Your task to perform on an android device: Go to Wikipedia Image 0: 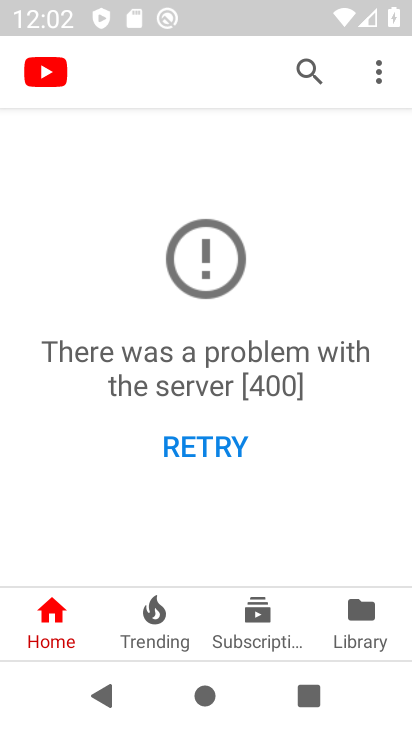
Step 0: press home button
Your task to perform on an android device: Go to Wikipedia Image 1: 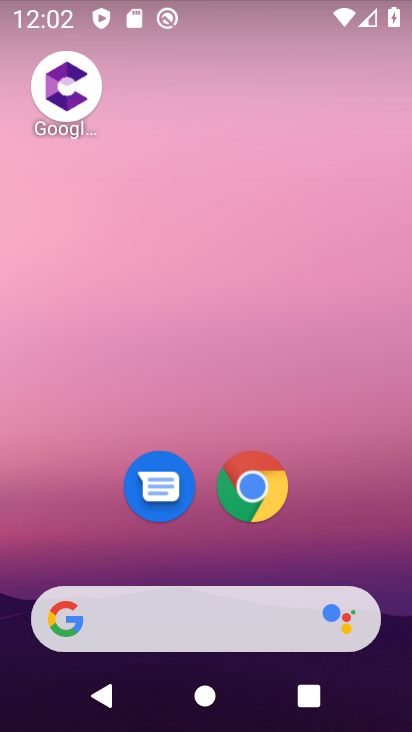
Step 1: click (257, 464)
Your task to perform on an android device: Go to Wikipedia Image 2: 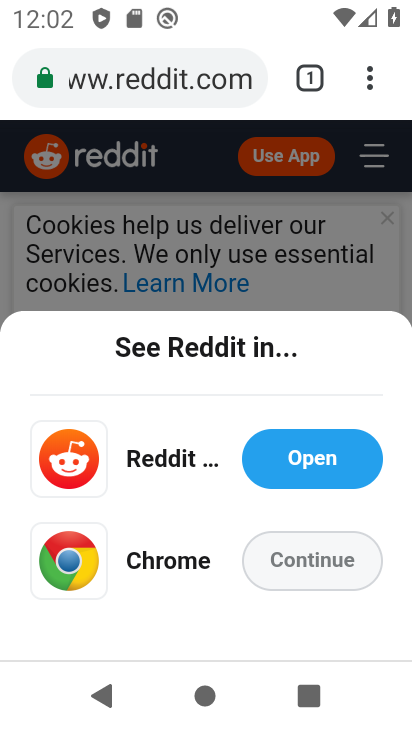
Step 2: click (317, 74)
Your task to perform on an android device: Go to Wikipedia Image 3: 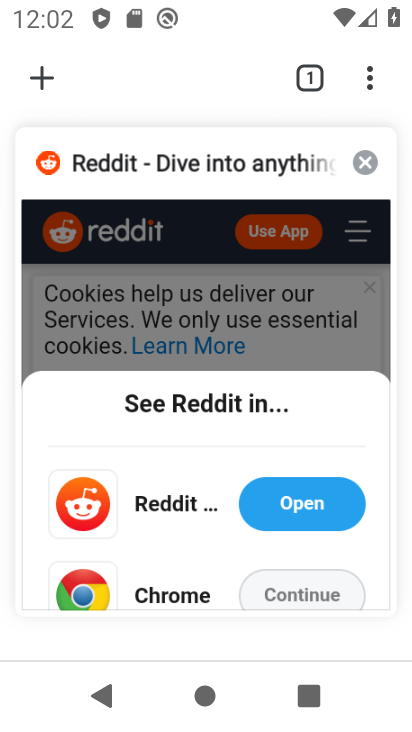
Step 3: click (40, 83)
Your task to perform on an android device: Go to Wikipedia Image 4: 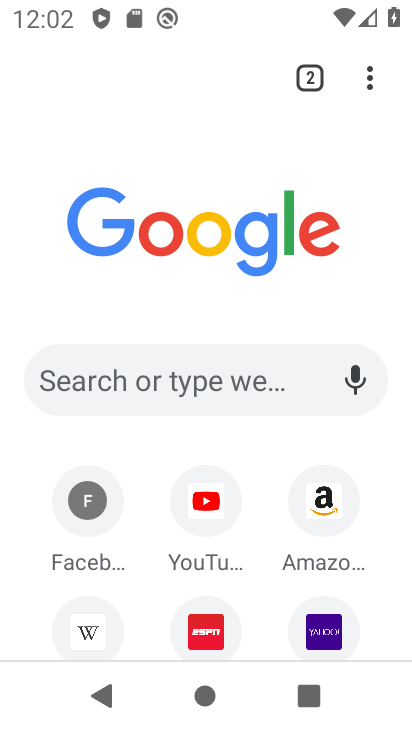
Step 4: click (91, 633)
Your task to perform on an android device: Go to Wikipedia Image 5: 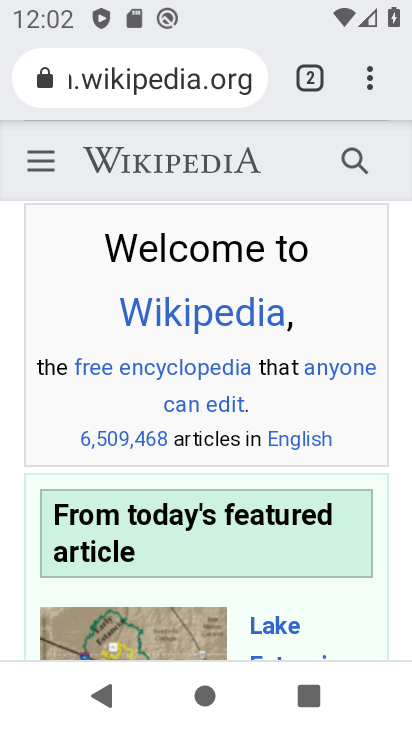
Step 5: task complete